Your task to perform on an android device: Open network settings Image 0: 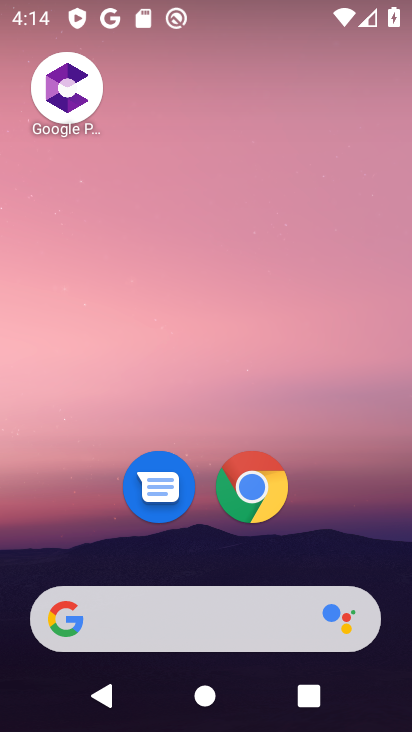
Step 0: drag from (246, 469) to (280, 9)
Your task to perform on an android device: Open network settings Image 1: 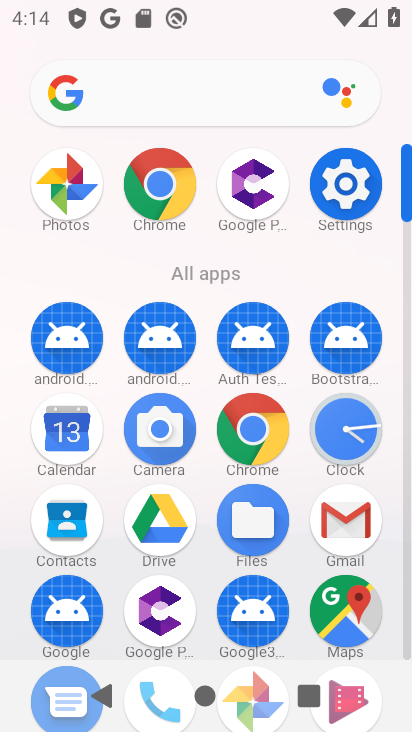
Step 1: click (346, 191)
Your task to perform on an android device: Open network settings Image 2: 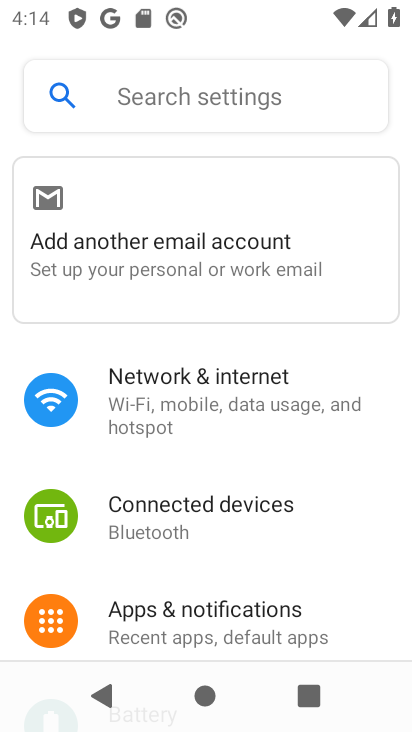
Step 2: click (232, 385)
Your task to perform on an android device: Open network settings Image 3: 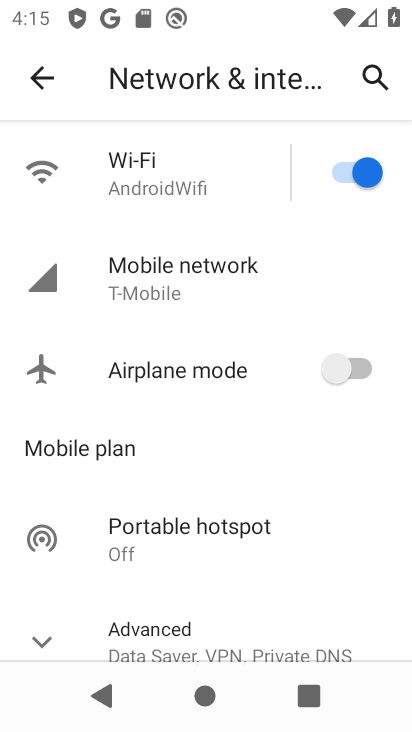
Step 3: task complete